Your task to perform on an android device: toggle notification dots Image 0: 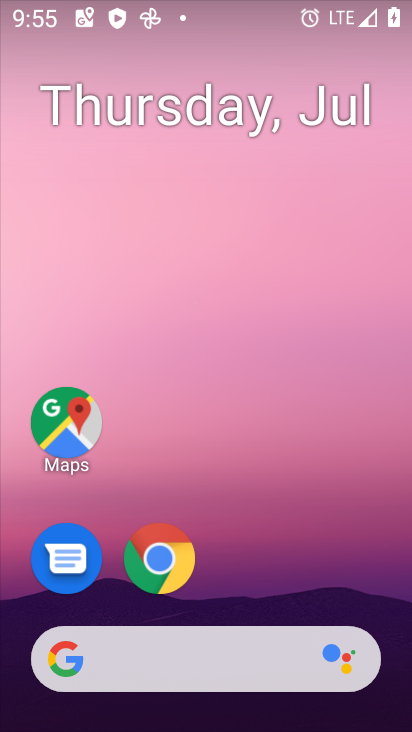
Step 0: drag from (363, 551) to (354, 132)
Your task to perform on an android device: toggle notification dots Image 1: 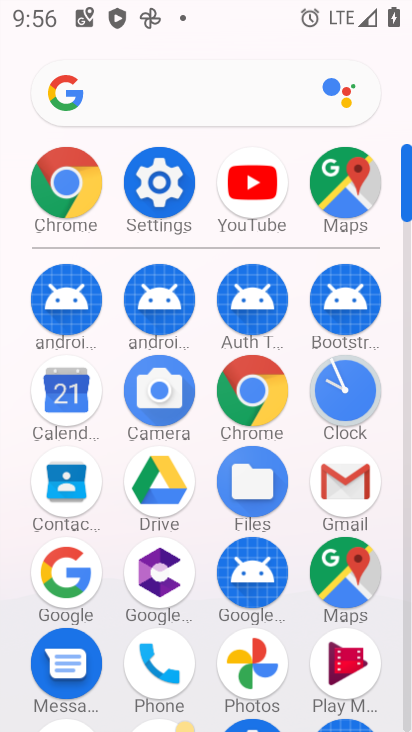
Step 1: click (173, 185)
Your task to perform on an android device: toggle notification dots Image 2: 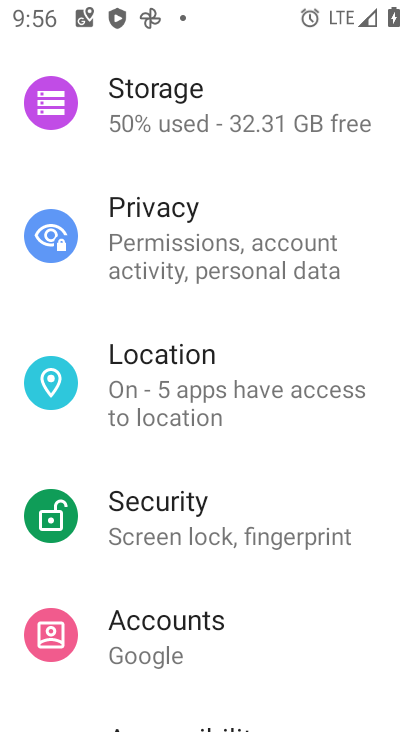
Step 2: drag from (365, 276) to (372, 371)
Your task to perform on an android device: toggle notification dots Image 3: 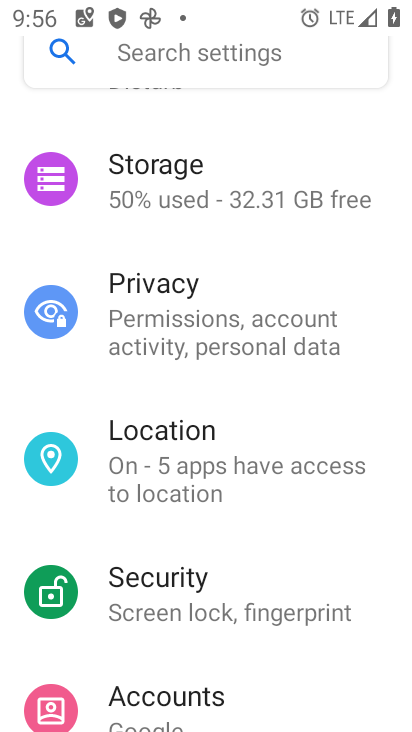
Step 3: drag from (378, 258) to (374, 358)
Your task to perform on an android device: toggle notification dots Image 4: 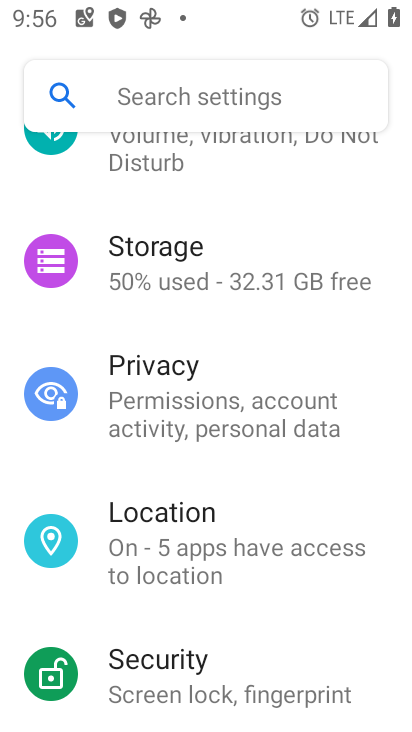
Step 4: drag from (369, 234) to (367, 373)
Your task to perform on an android device: toggle notification dots Image 5: 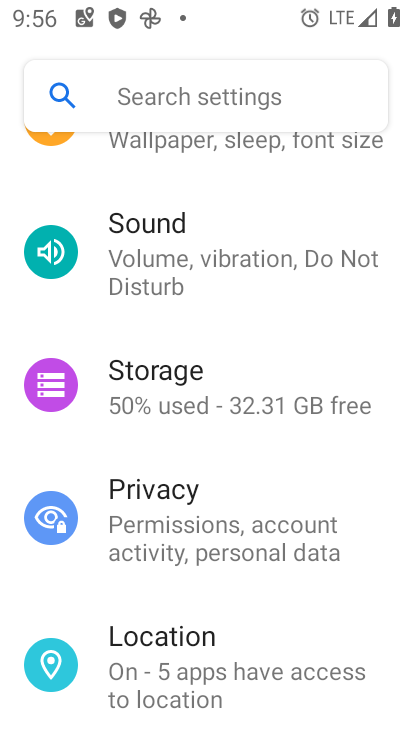
Step 5: drag from (380, 294) to (371, 388)
Your task to perform on an android device: toggle notification dots Image 6: 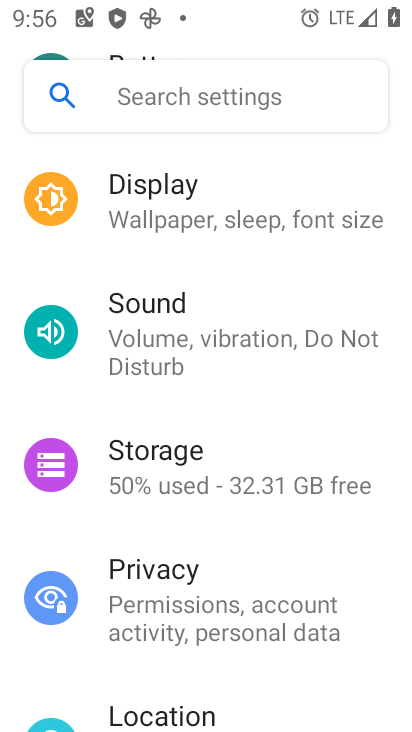
Step 6: drag from (369, 266) to (368, 370)
Your task to perform on an android device: toggle notification dots Image 7: 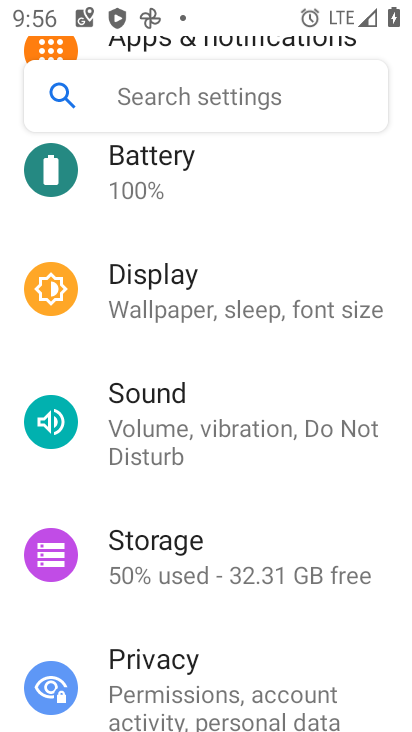
Step 7: drag from (385, 252) to (366, 345)
Your task to perform on an android device: toggle notification dots Image 8: 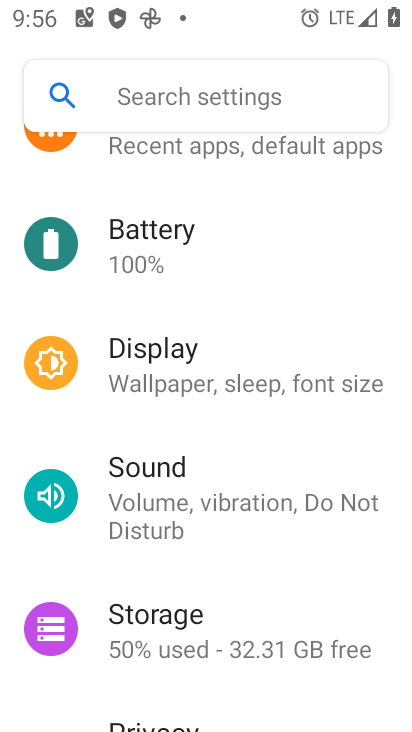
Step 8: drag from (356, 248) to (354, 330)
Your task to perform on an android device: toggle notification dots Image 9: 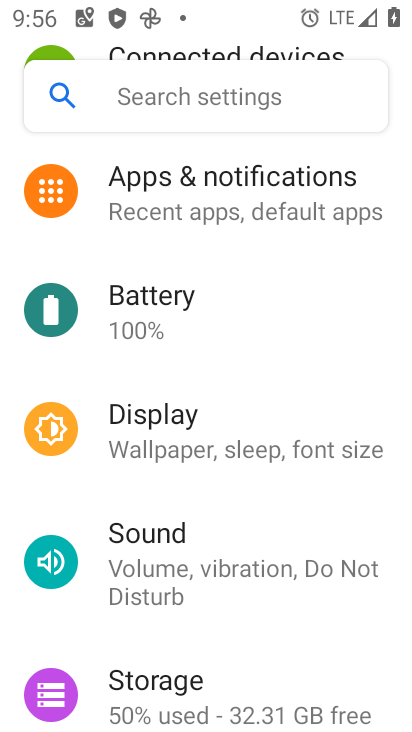
Step 9: drag from (348, 248) to (342, 343)
Your task to perform on an android device: toggle notification dots Image 10: 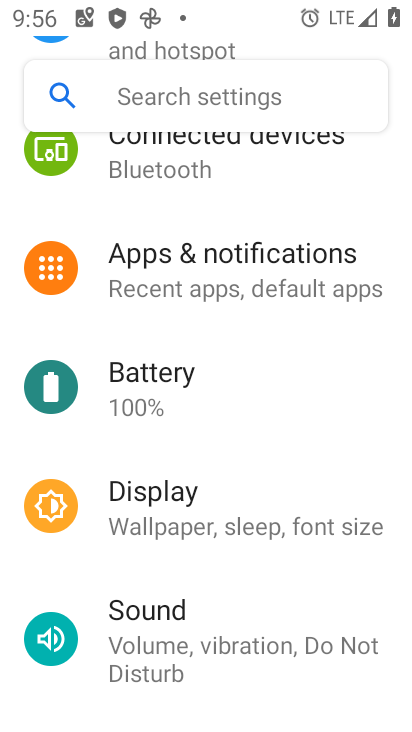
Step 10: drag from (336, 265) to (328, 383)
Your task to perform on an android device: toggle notification dots Image 11: 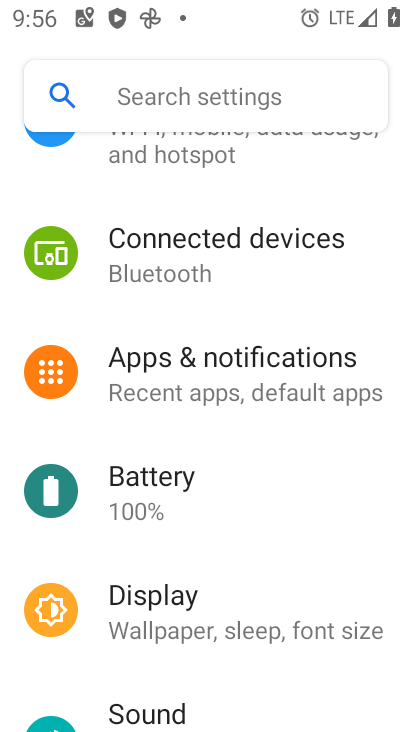
Step 11: click (330, 371)
Your task to perform on an android device: toggle notification dots Image 12: 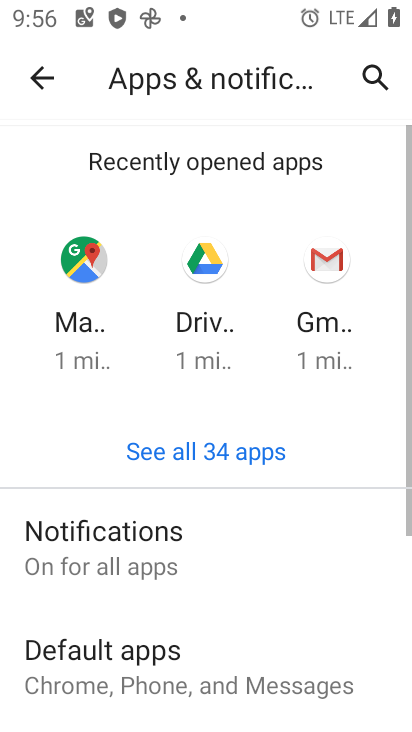
Step 12: drag from (316, 473) to (325, 400)
Your task to perform on an android device: toggle notification dots Image 13: 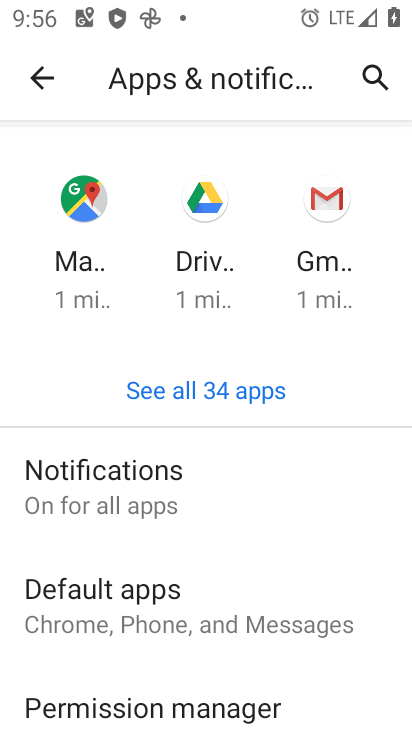
Step 13: click (292, 485)
Your task to perform on an android device: toggle notification dots Image 14: 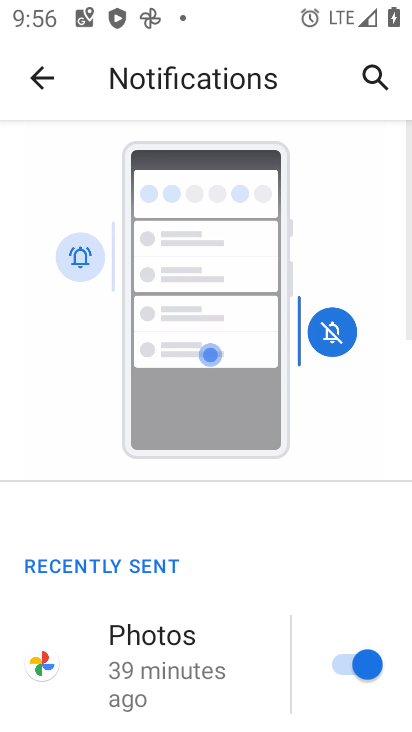
Step 14: drag from (294, 544) to (297, 478)
Your task to perform on an android device: toggle notification dots Image 15: 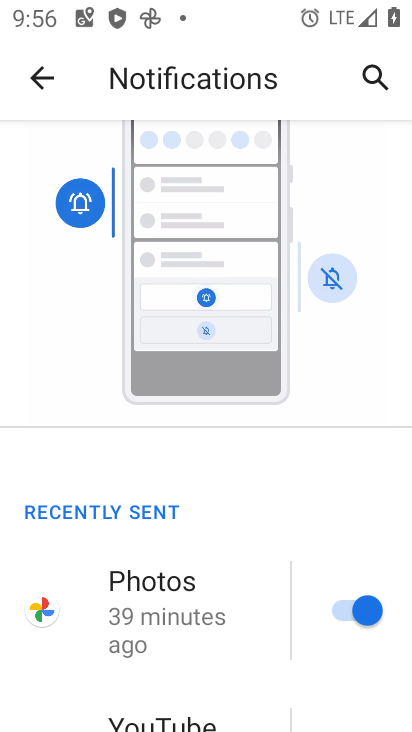
Step 15: drag from (286, 532) to (293, 471)
Your task to perform on an android device: toggle notification dots Image 16: 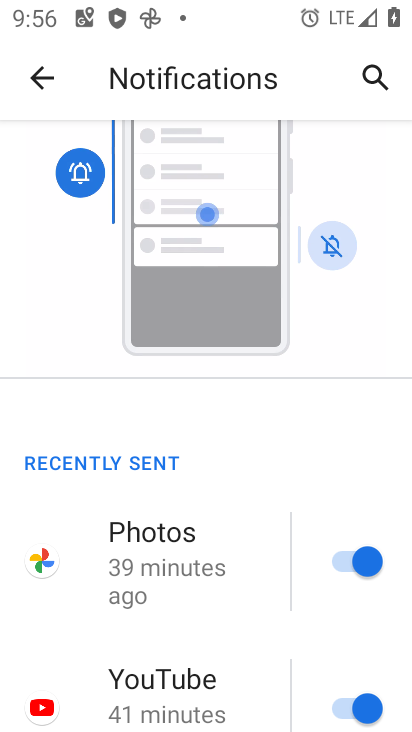
Step 16: drag from (257, 544) to (264, 467)
Your task to perform on an android device: toggle notification dots Image 17: 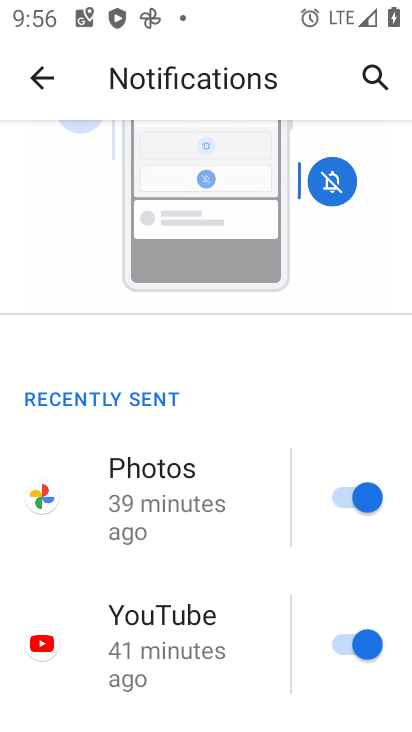
Step 17: drag from (245, 570) to (246, 500)
Your task to perform on an android device: toggle notification dots Image 18: 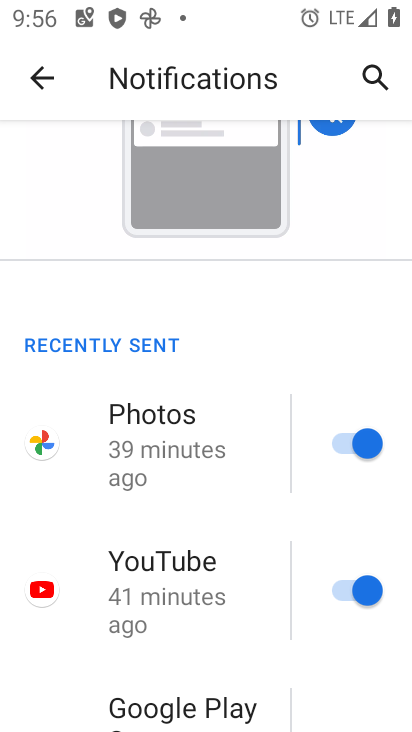
Step 18: click (251, 534)
Your task to perform on an android device: toggle notification dots Image 19: 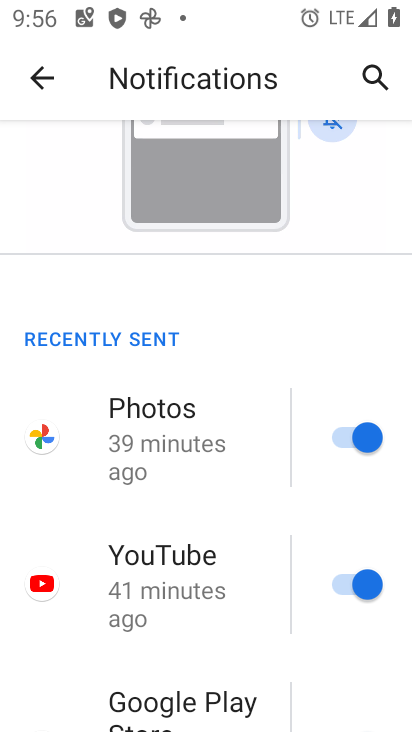
Step 19: drag from (244, 572) to (253, 490)
Your task to perform on an android device: toggle notification dots Image 20: 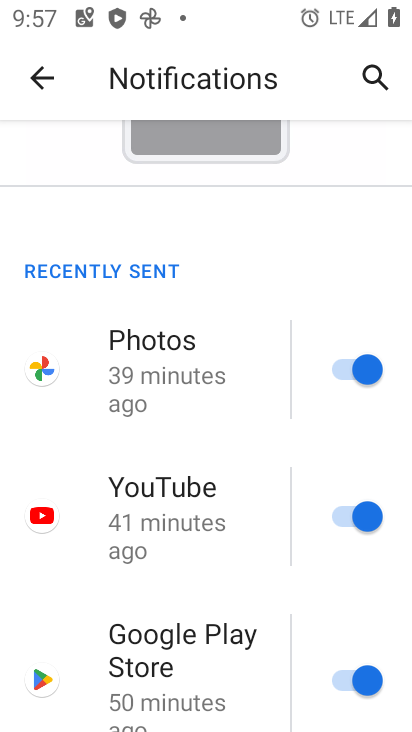
Step 20: drag from (242, 568) to (248, 524)
Your task to perform on an android device: toggle notification dots Image 21: 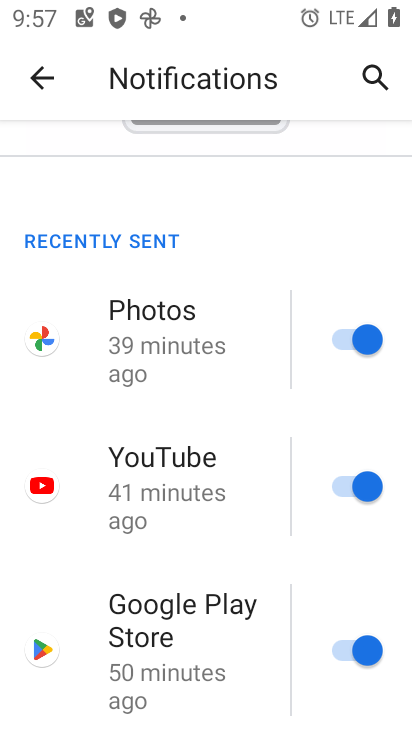
Step 21: drag from (249, 586) to (256, 464)
Your task to perform on an android device: toggle notification dots Image 22: 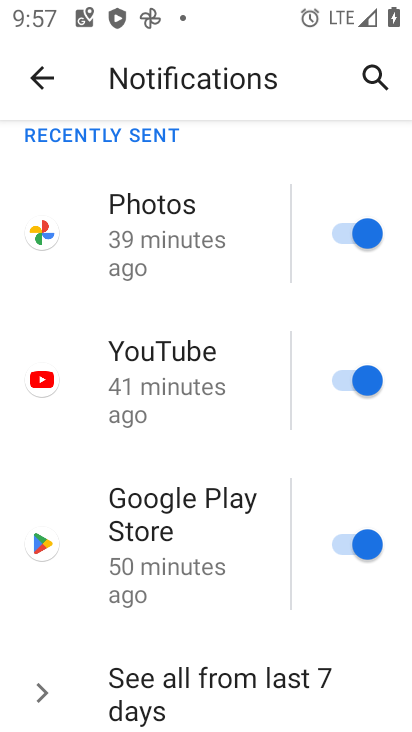
Step 22: drag from (245, 642) to (269, 502)
Your task to perform on an android device: toggle notification dots Image 23: 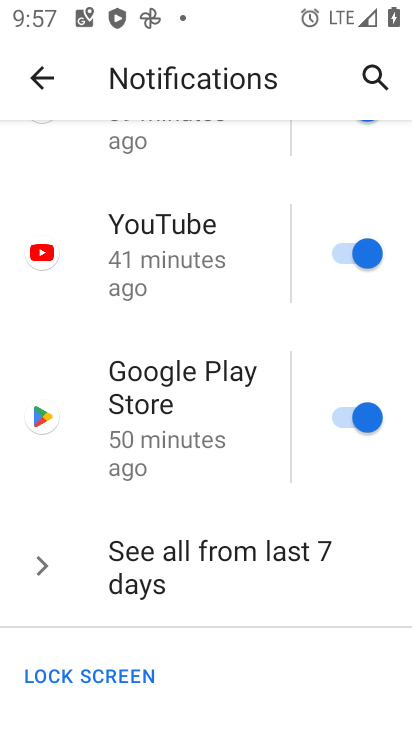
Step 23: drag from (243, 663) to (259, 507)
Your task to perform on an android device: toggle notification dots Image 24: 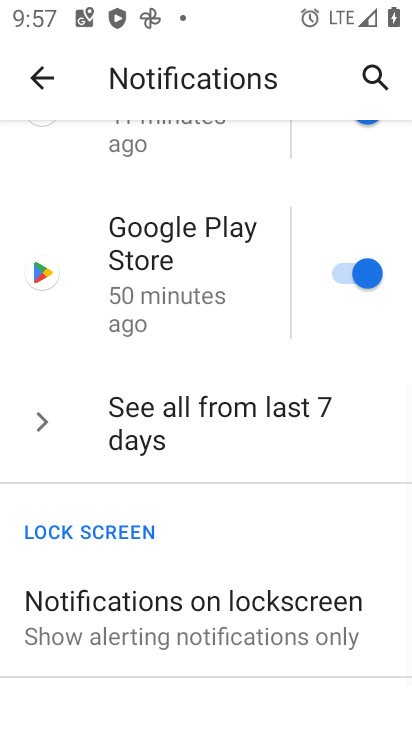
Step 24: drag from (223, 625) to (222, 527)
Your task to perform on an android device: toggle notification dots Image 25: 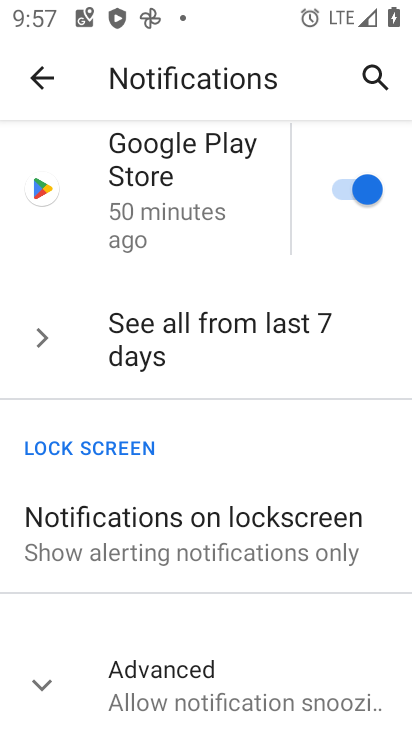
Step 25: click (241, 690)
Your task to perform on an android device: toggle notification dots Image 26: 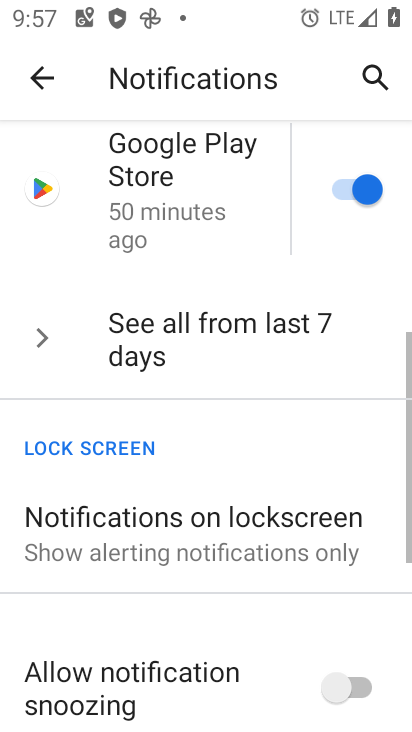
Step 26: drag from (312, 626) to (312, 537)
Your task to perform on an android device: toggle notification dots Image 27: 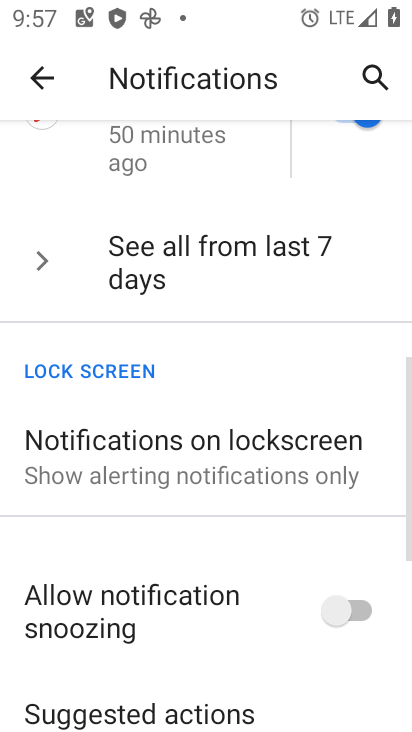
Step 27: click (283, 594)
Your task to perform on an android device: toggle notification dots Image 28: 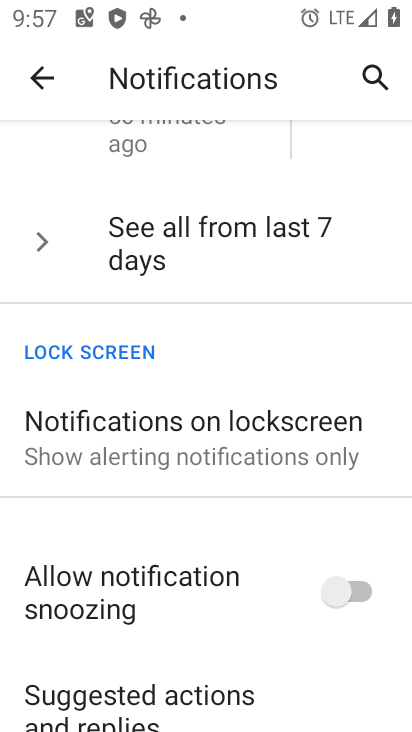
Step 28: drag from (279, 625) to (279, 587)
Your task to perform on an android device: toggle notification dots Image 29: 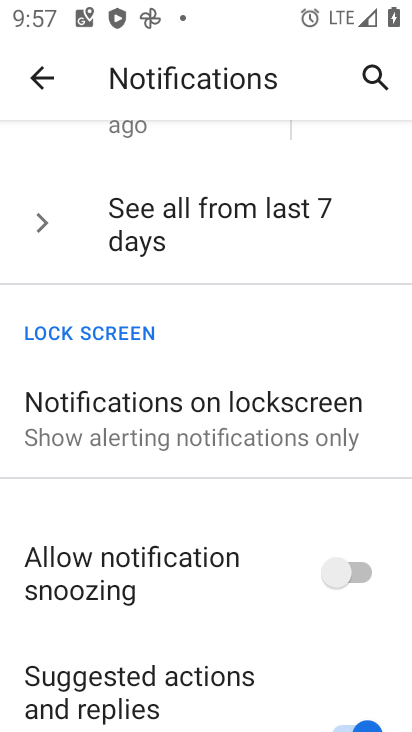
Step 29: drag from (268, 648) to (273, 500)
Your task to perform on an android device: toggle notification dots Image 30: 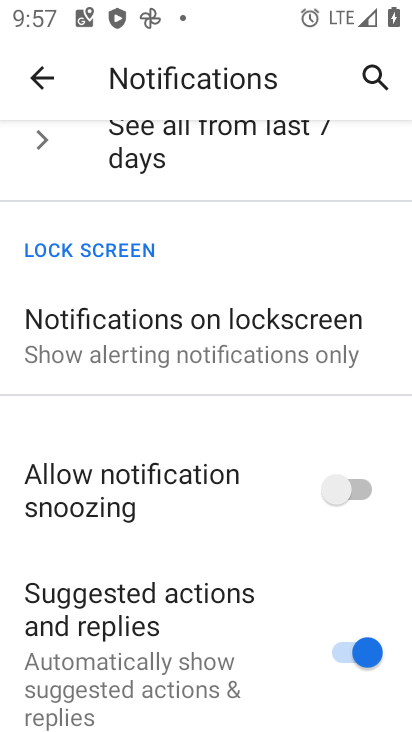
Step 30: drag from (253, 618) to (252, 573)
Your task to perform on an android device: toggle notification dots Image 31: 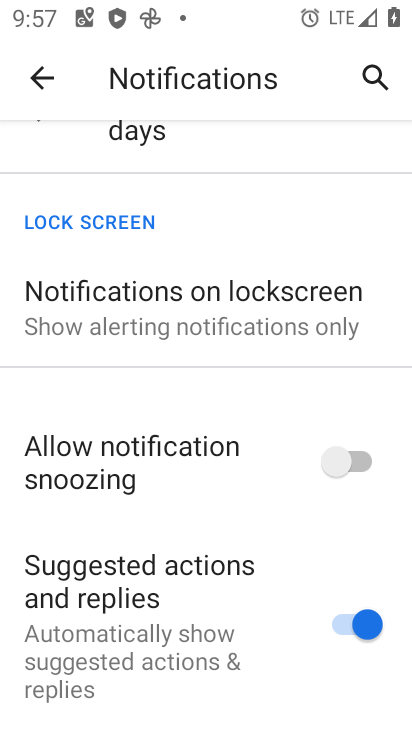
Step 31: drag from (234, 657) to (235, 589)
Your task to perform on an android device: toggle notification dots Image 32: 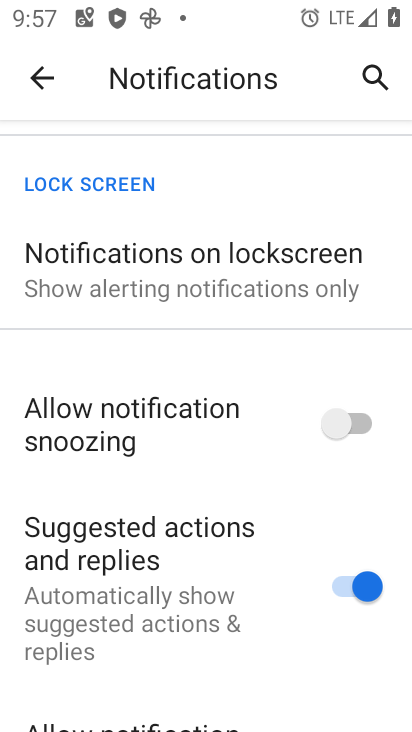
Step 32: drag from (268, 615) to (249, 345)
Your task to perform on an android device: toggle notification dots Image 33: 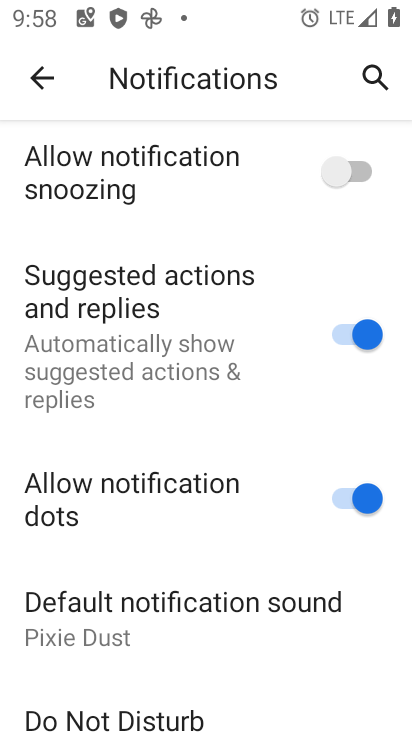
Step 33: click (356, 503)
Your task to perform on an android device: toggle notification dots Image 34: 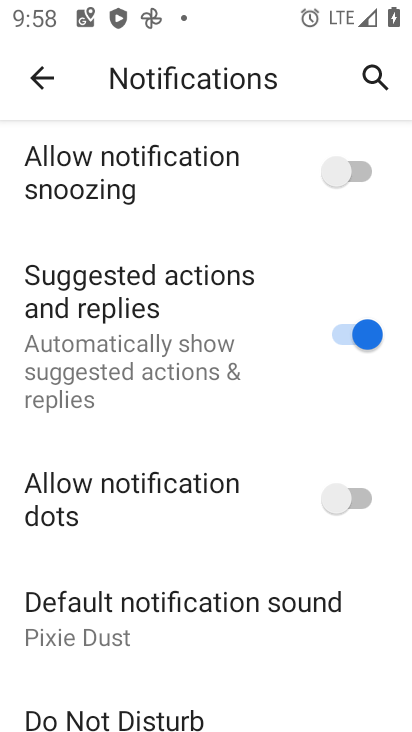
Step 34: task complete